Your task to perform on an android device: Open wifi settings Image 0: 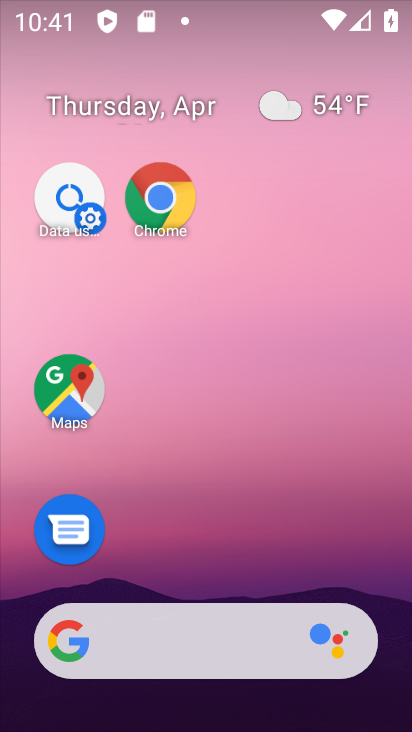
Step 0: drag from (206, 583) to (291, 4)
Your task to perform on an android device: Open wifi settings Image 1: 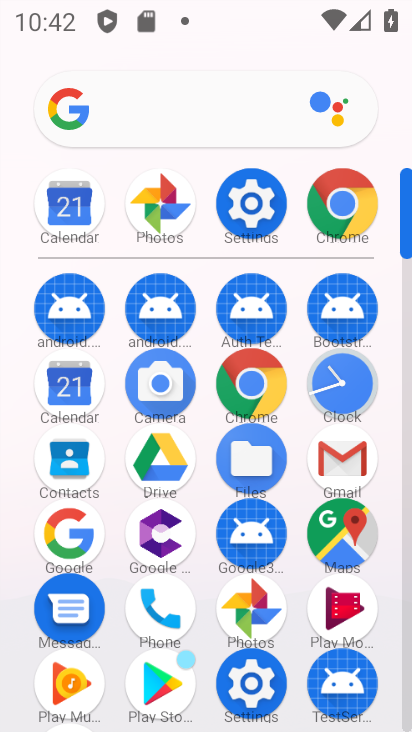
Step 1: click (253, 215)
Your task to perform on an android device: Open wifi settings Image 2: 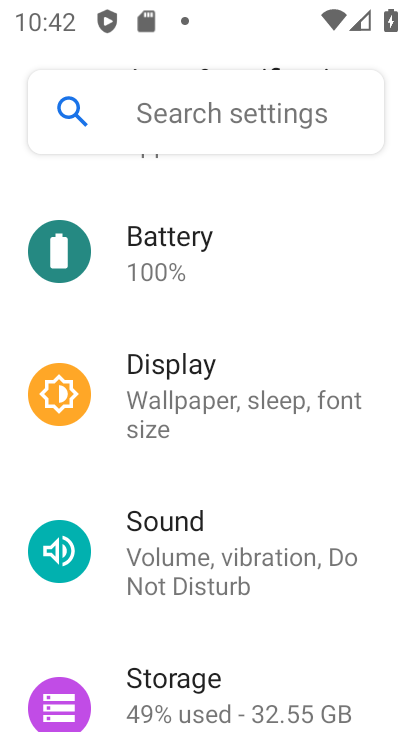
Step 2: drag from (217, 335) to (182, 692)
Your task to perform on an android device: Open wifi settings Image 3: 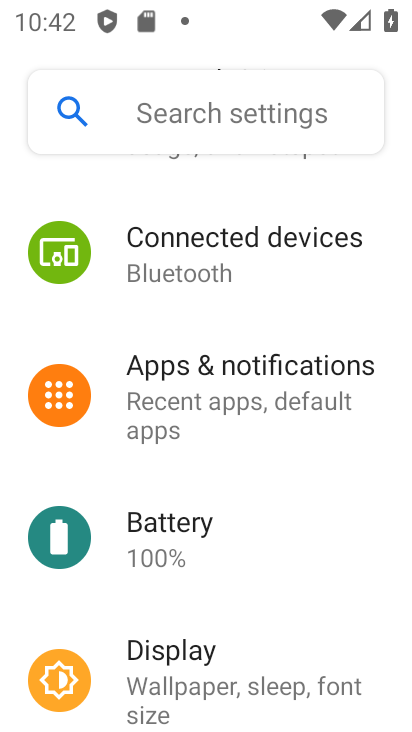
Step 3: drag from (204, 294) to (209, 626)
Your task to perform on an android device: Open wifi settings Image 4: 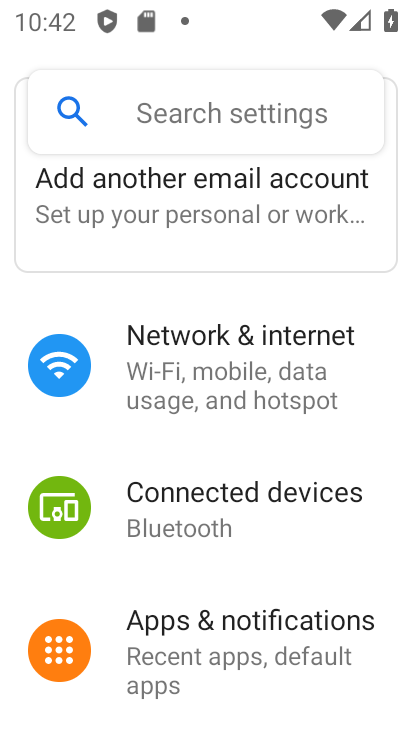
Step 4: click (192, 394)
Your task to perform on an android device: Open wifi settings Image 5: 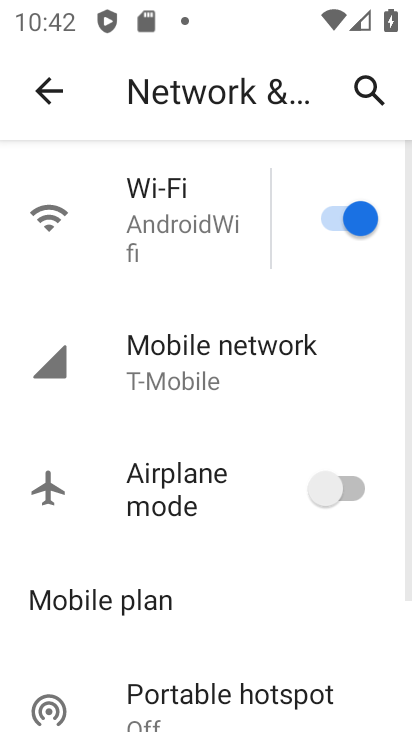
Step 5: click (182, 256)
Your task to perform on an android device: Open wifi settings Image 6: 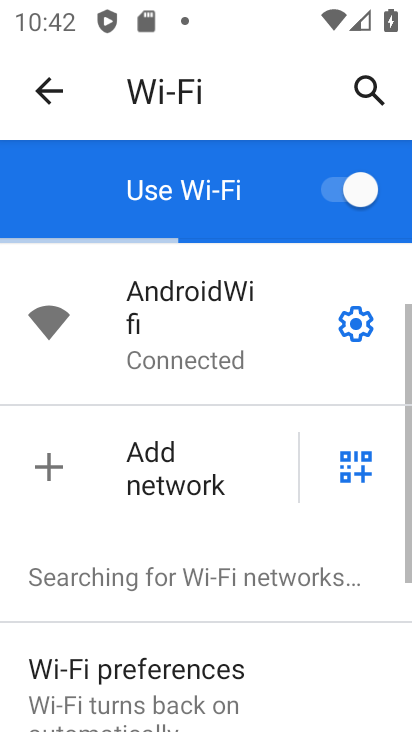
Step 6: task complete